Your task to perform on an android device: open a bookmark in the chrome app Image 0: 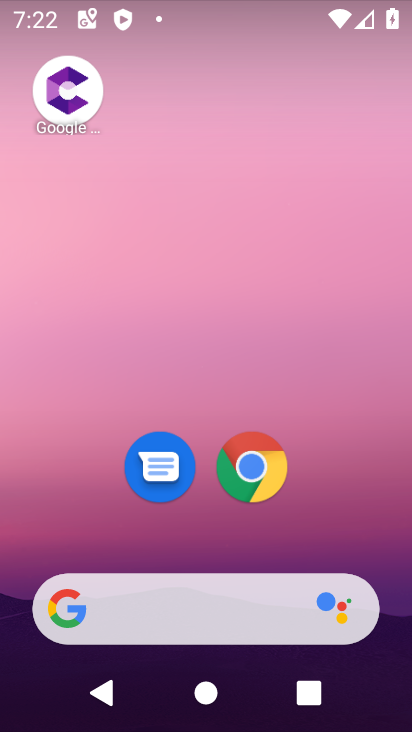
Step 0: click (257, 467)
Your task to perform on an android device: open a bookmark in the chrome app Image 1: 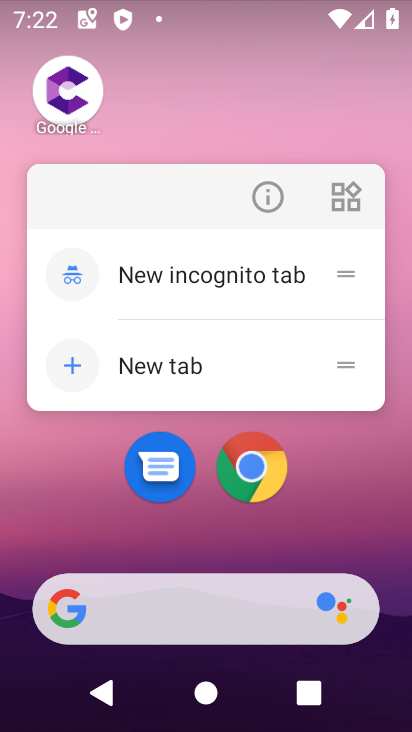
Step 1: click (257, 467)
Your task to perform on an android device: open a bookmark in the chrome app Image 2: 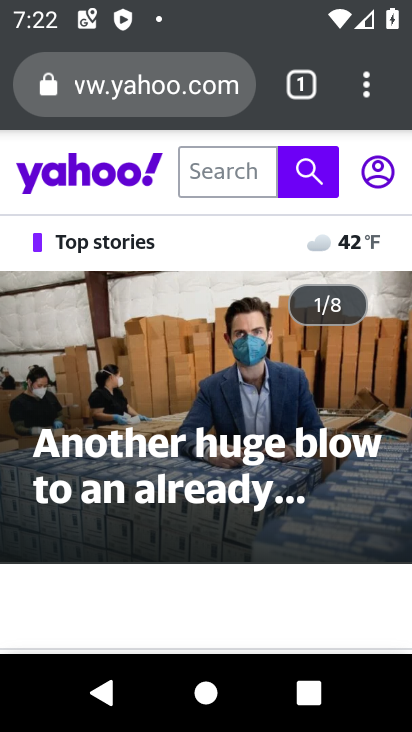
Step 2: click (365, 75)
Your task to perform on an android device: open a bookmark in the chrome app Image 3: 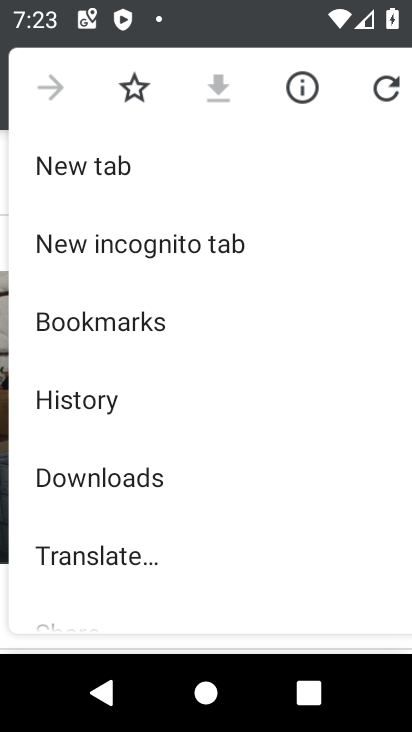
Step 3: click (100, 318)
Your task to perform on an android device: open a bookmark in the chrome app Image 4: 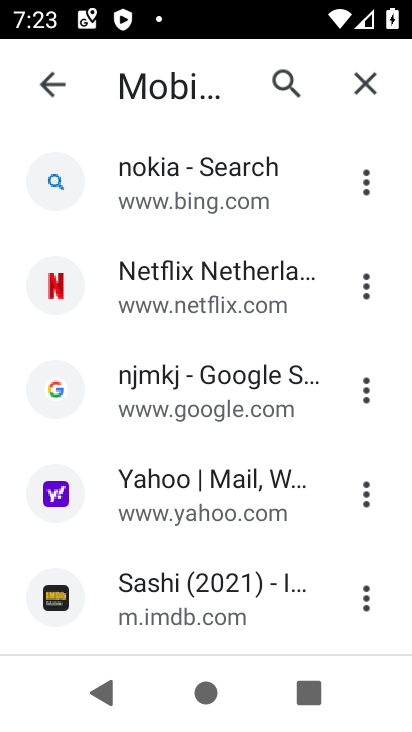
Step 4: click (131, 281)
Your task to perform on an android device: open a bookmark in the chrome app Image 5: 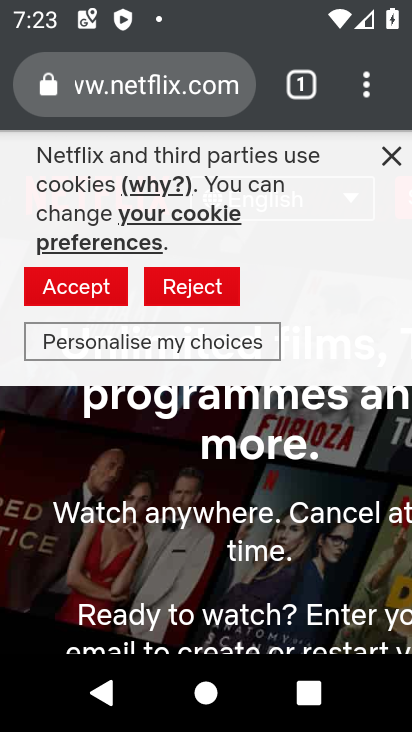
Step 5: task complete